Your task to perform on an android device: Go to accessibility settings Image 0: 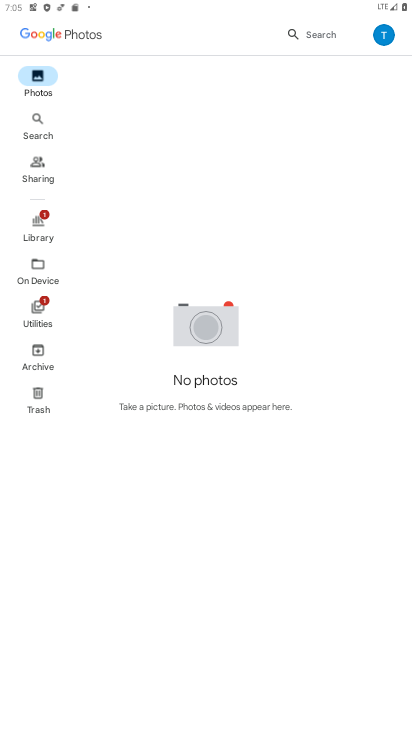
Step 0: press home button
Your task to perform on an android device: Go to accessibility settings Image 1: 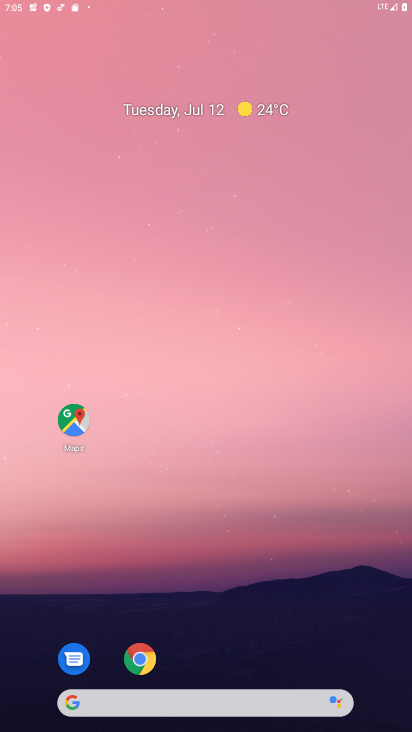
Step 1: drag from (356, 672) to (241, 56)
Your task to perform on an android device: Go to accessibility settings Image 2: 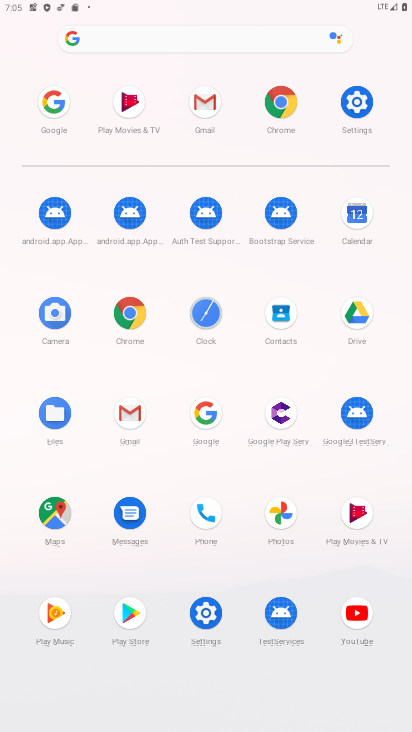
Step 2: click (349, 101)
Your task to perform on an android device: Go to accessibility settings Image 3: 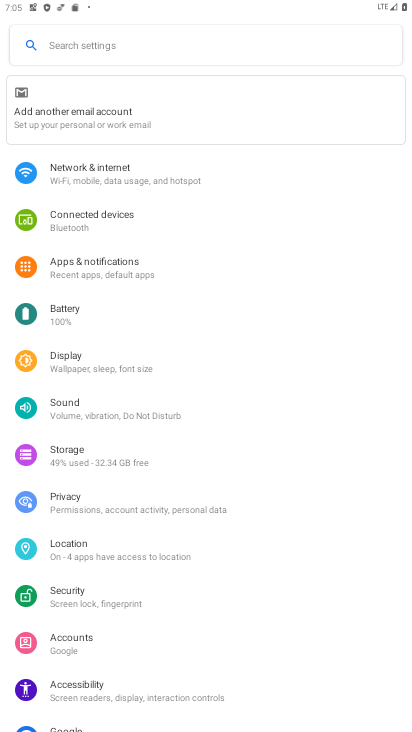
Step 3: click (82, 687)
Your task to perform on an android device: Go to accessibility settings Image 4: 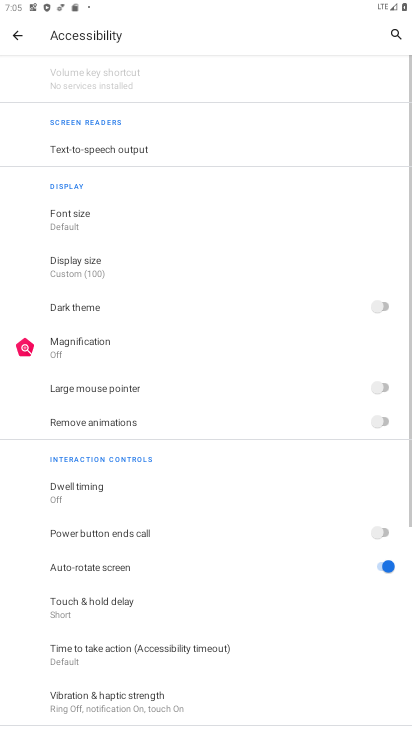
Step 4: task complete